Your task to perform on an android device: uninstall "Calculator" Image 0: 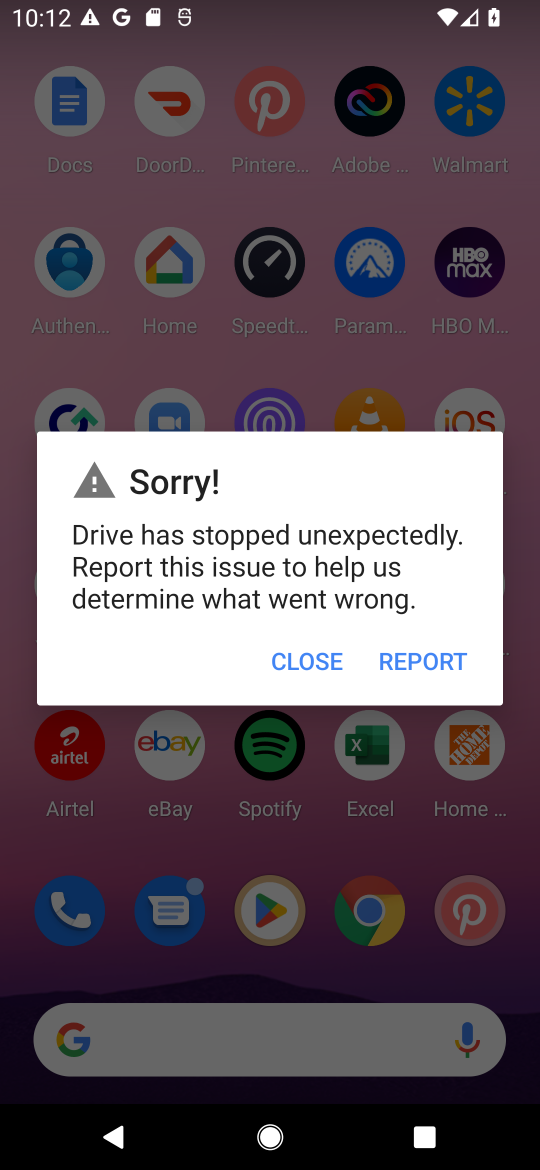
Step 0: click (305, 641)
Your task to perform on an android device: uninstall "Calculator" Image 1: 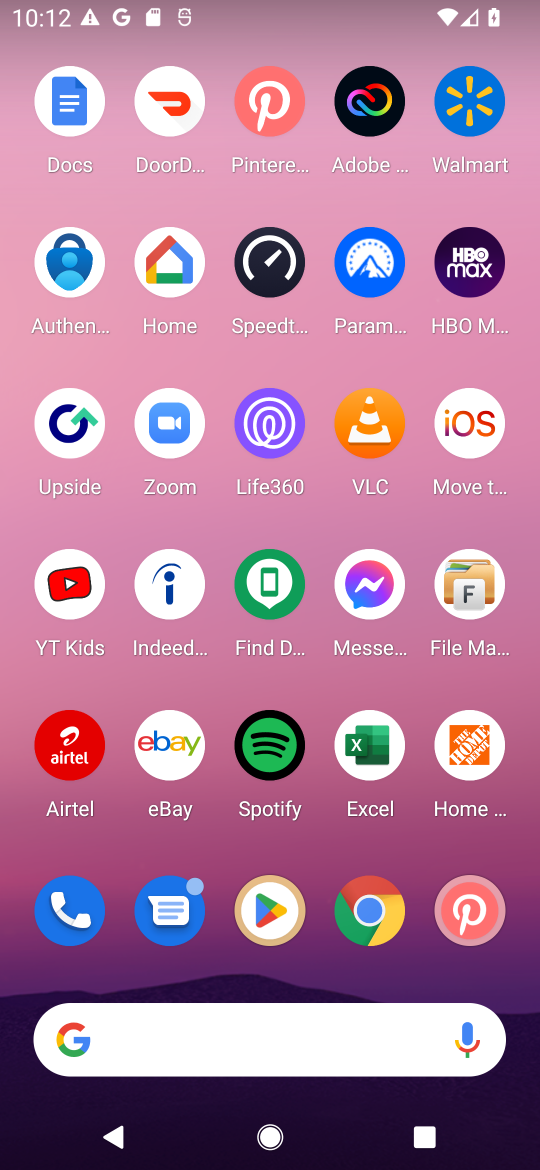
Step 1: click (274, 914)
Your task to perform on an android device: uninstall "Calculator" Image 2: 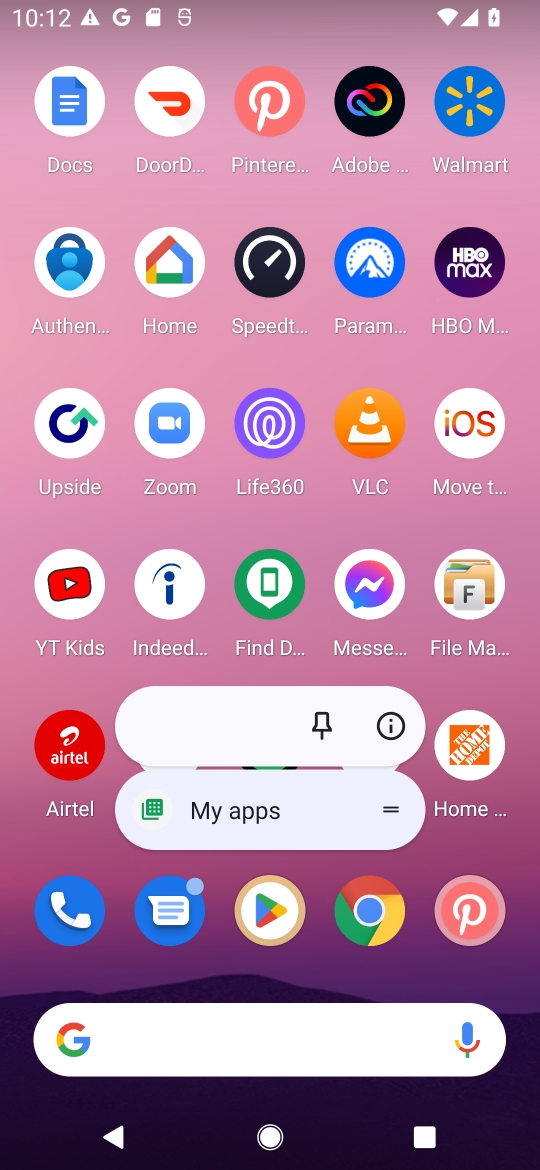
Step 2: click (274, 914)
Your task to perform on an android device: uninstall "Calculator" Image 3: 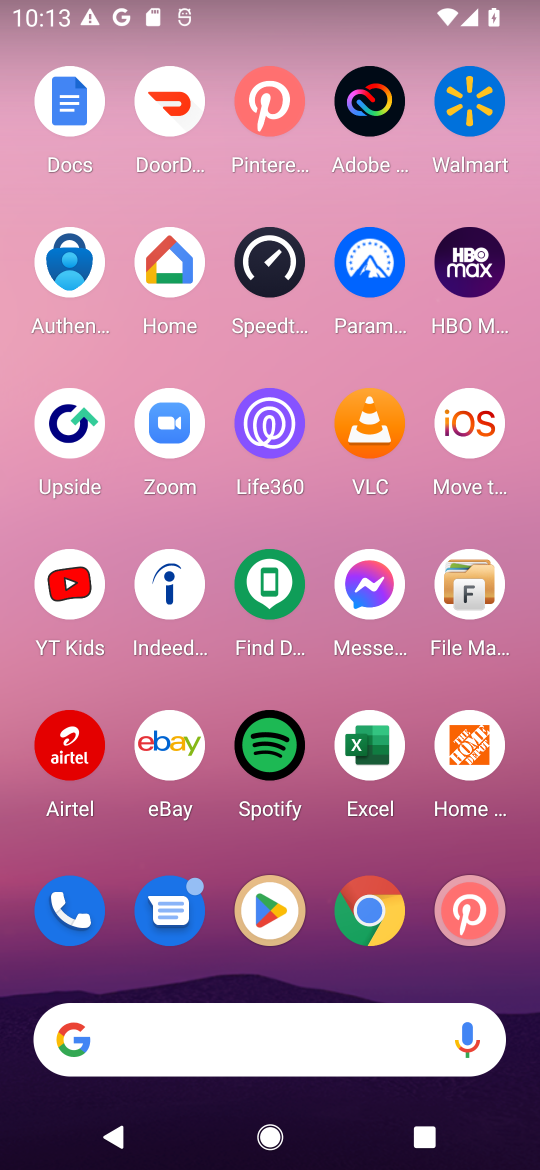
Step 3: click (278, 904)
Your task to perform on an android device: uninstall "Calculator" Image 4: 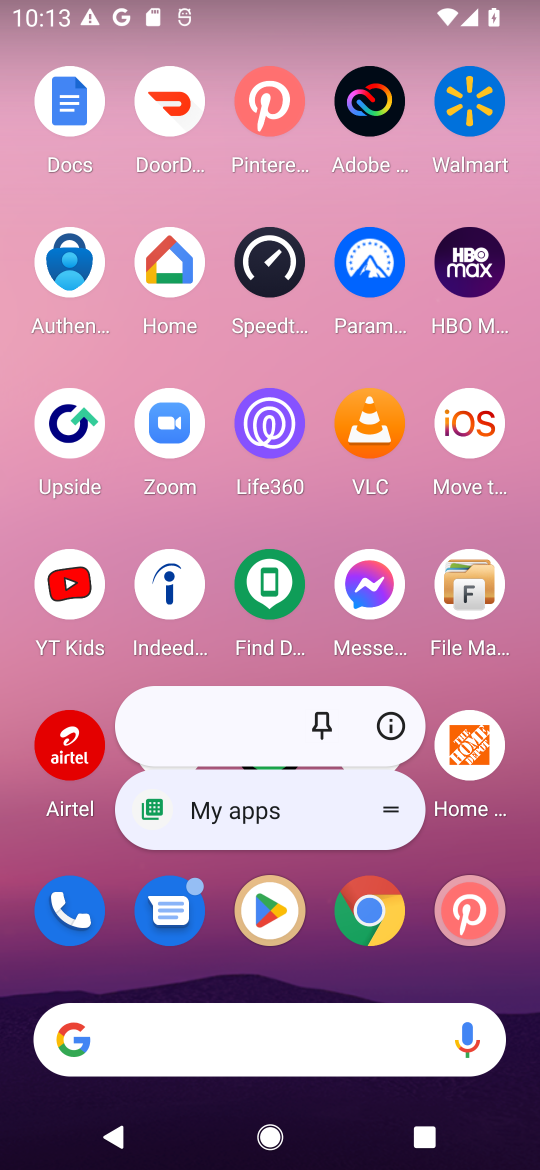
Step 4: click (278, 904)
Your task to perform on an android device: uninstall "Calculator" Image 5: 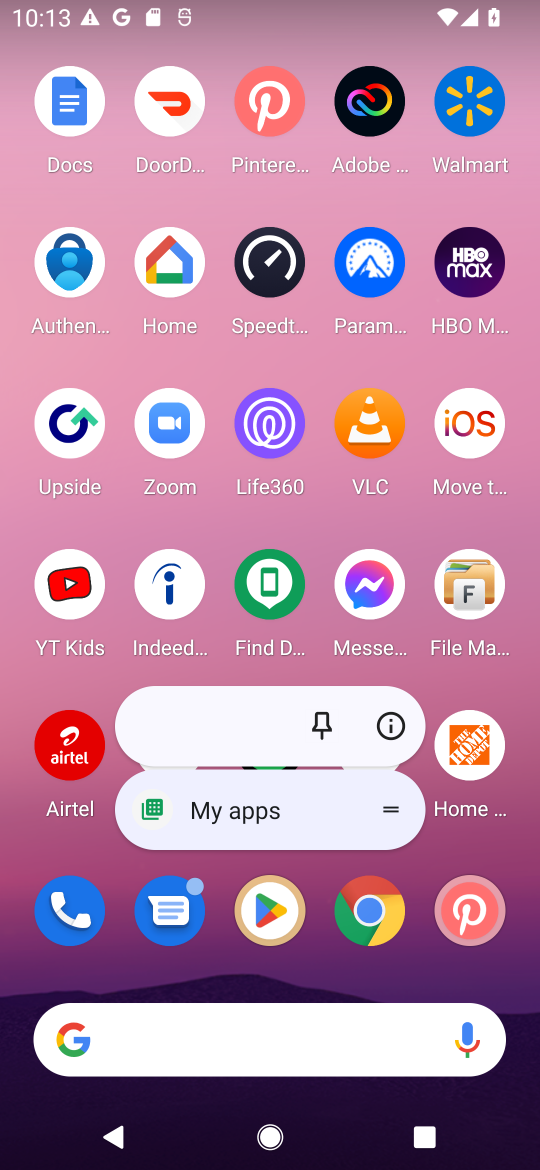
Step 5: click (275, 926)
Your task to perform on an android device: uninstall "Calculator" Image 6: 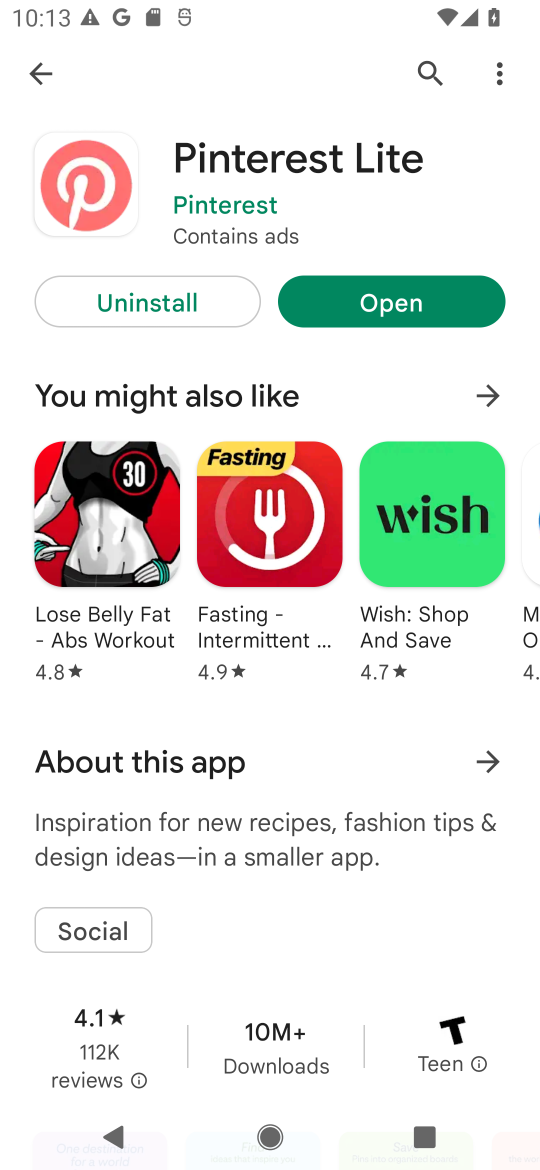
Step 6: click (420, 107)
Your task to perform on an android device: uninstall "Calculator" Image 7: 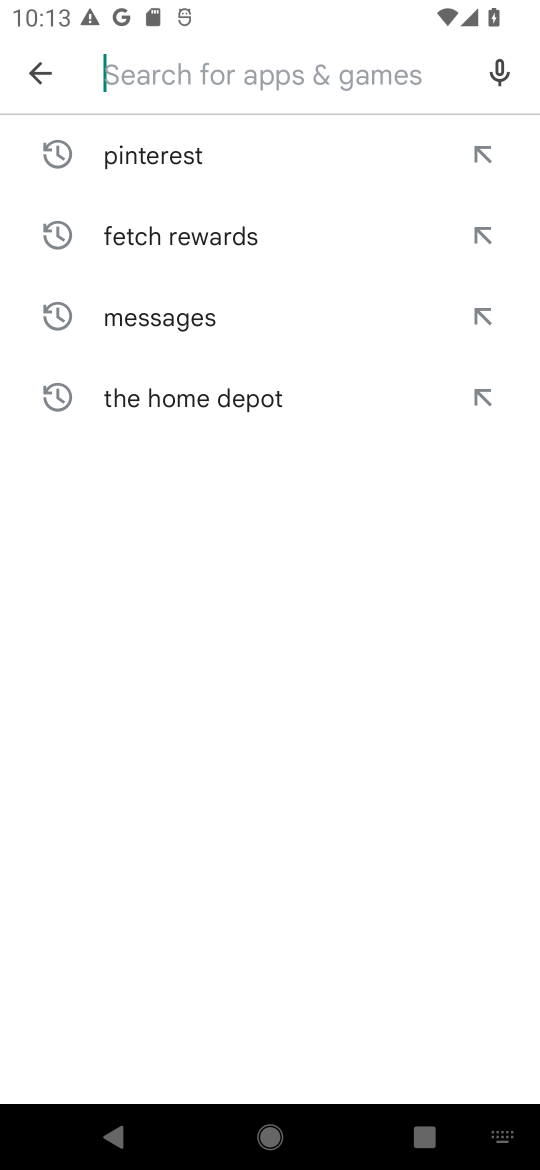
Step 7: type "Calculator"
Your task to perform on an android device: uninstall "Calculator" Image 8: 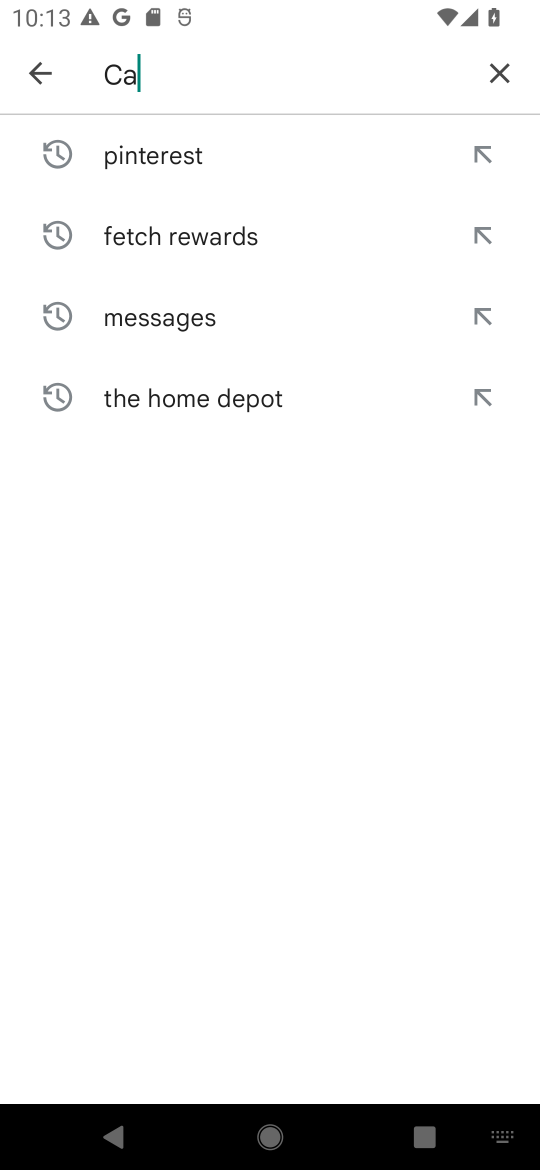
Step 8: type ""
Your task to perform on an android device: uninstall "Calculator" Image 9: 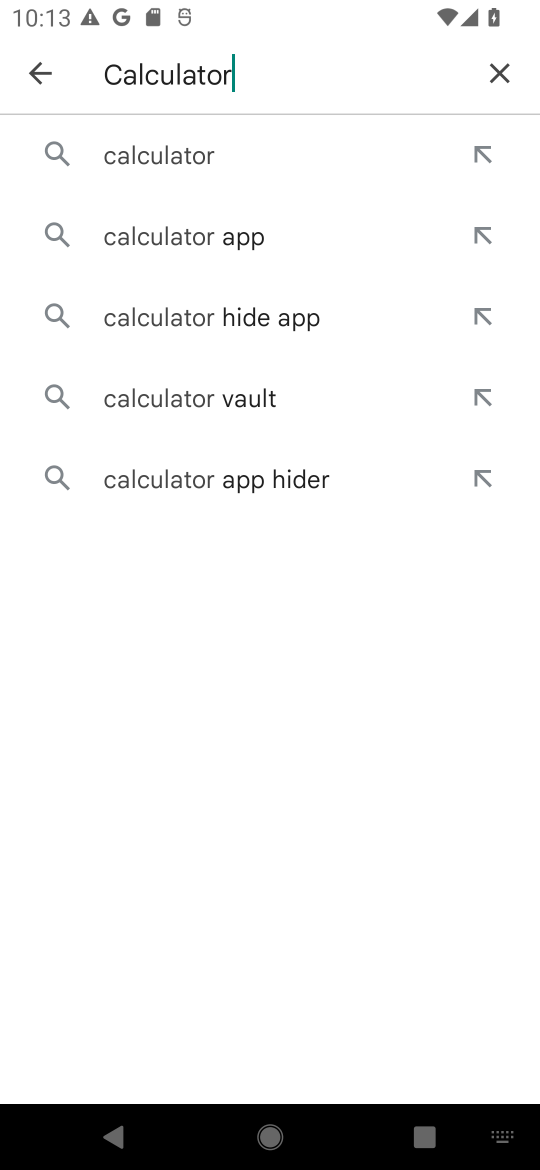
Step 9: click (199, 150)
Your task to perform on an android device: uninstall "Calculator" Image 10: 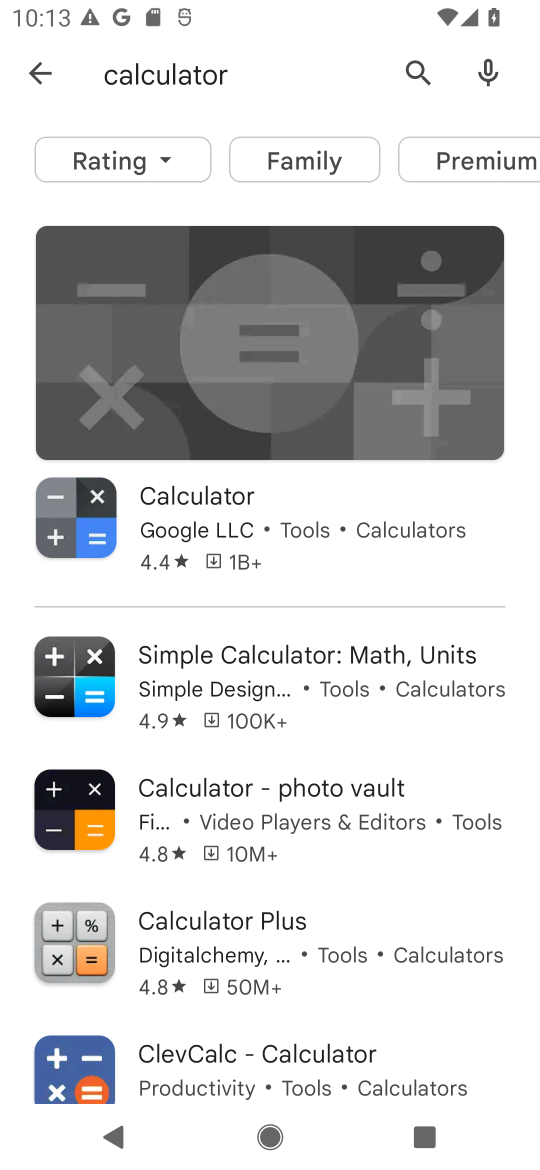
Step 10: click (239, 521)
Your task to perform on an android device: uninstall "Calculator" Image 11: 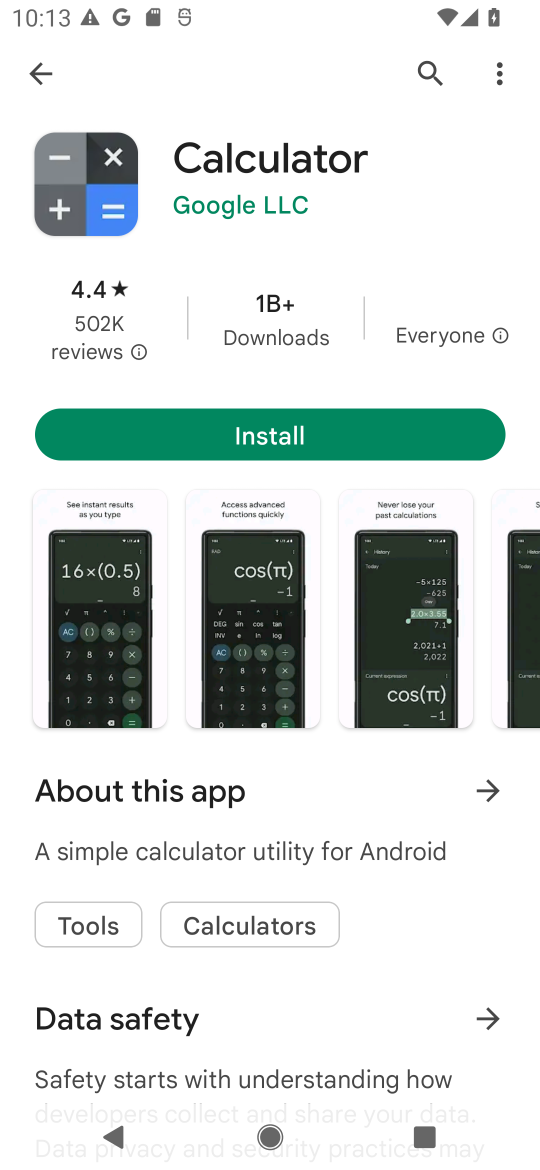
Step 11: task complete